Your task to perform on an android device: turn off sleep mode Image 0: 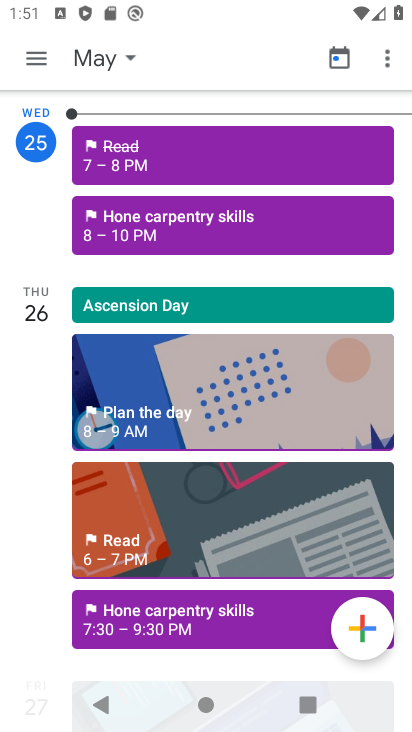
Step 0: press home button
Your task to perform on an android device: turn off sleep mode Image 1: 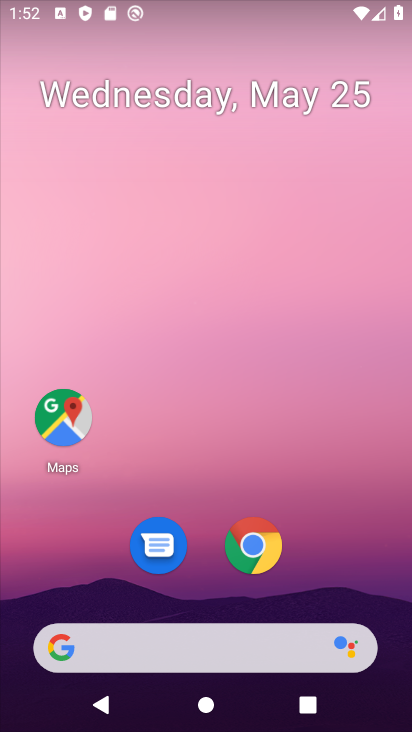
Step 1: drag from (338, 553) to (330, 134)
Your task to perform on an android device: turn off sleep mode Image 2: 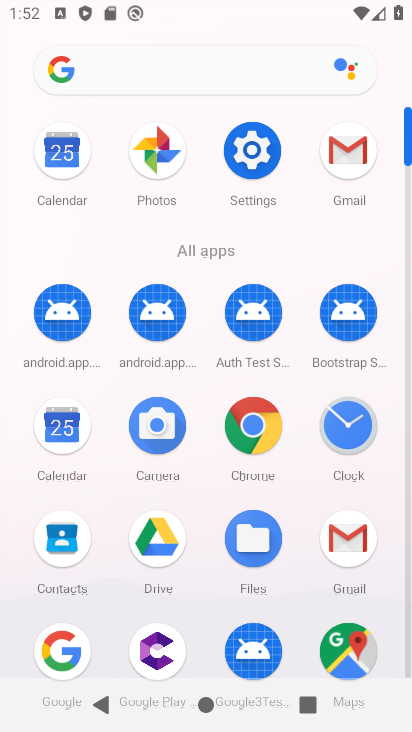
Step 2: click (282, 175)
Your task to perform on an android device: turn off sleep mode Image 3: 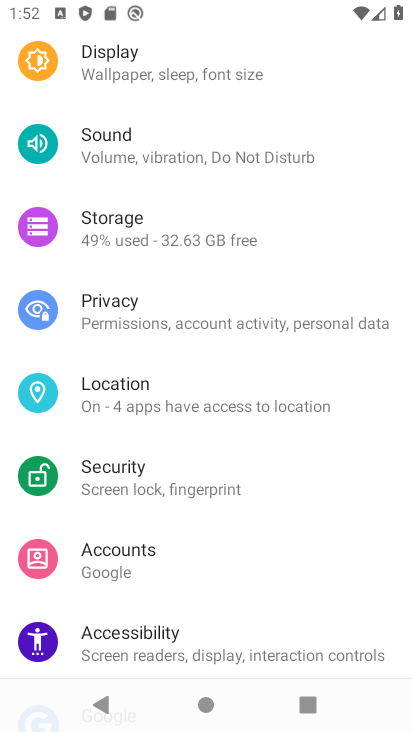
Step 3: click (214, 86)
Your task to perform on an android device: turn off sleep mode Image 4: 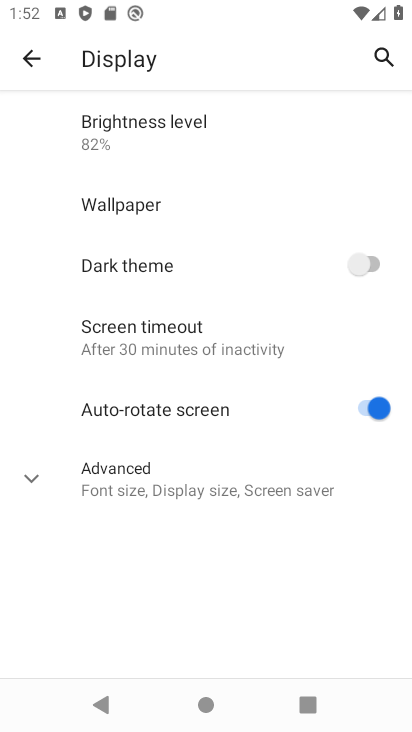
Step 4: click (260, 359)
Your task to perform on an android device: turn off sleep mode Image 5: 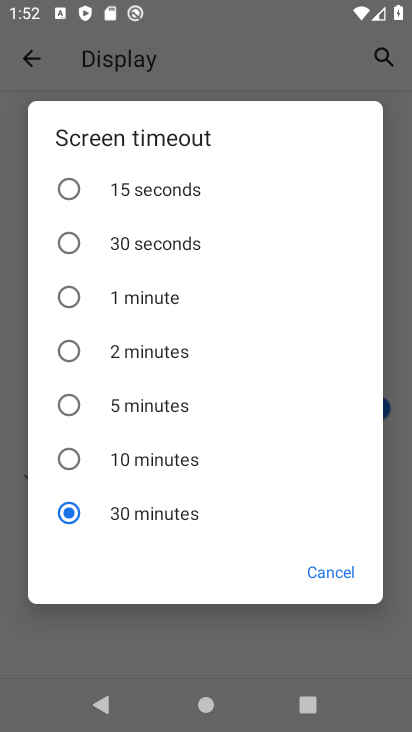
Step 5: click (173, 300)
Your task to perform on an android device: turn off sleep mode Image 6: 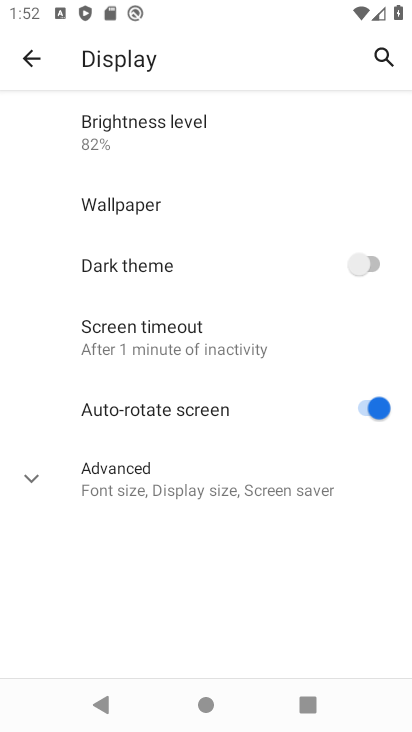
Step 6: task complete